Your task to perform on an android device: Go to accessibility settings Image 0: 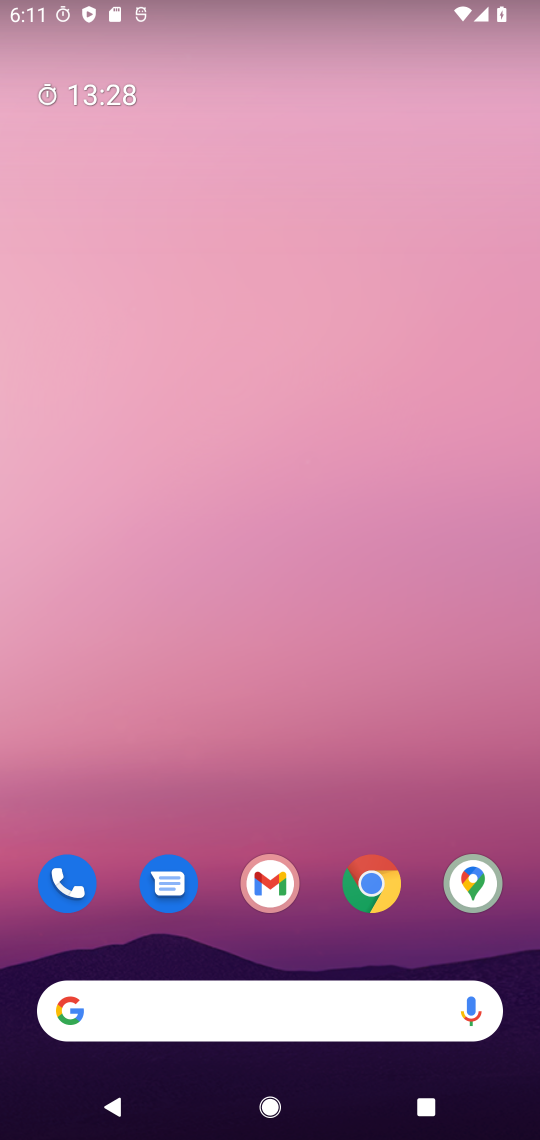
Step 0: drag from (286, 804) to (286, 176)
Your task to perform on an android device: Go to accessibility settings Image 1: 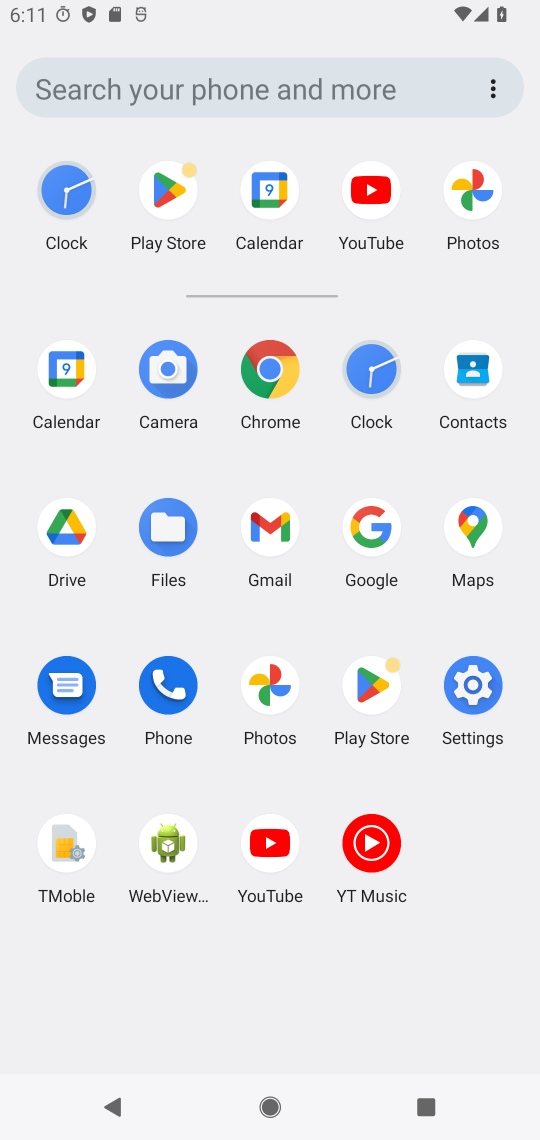
Step 1: click (445, 666)
Your task to perform on an android device: Go to accessibility settings Image 2: 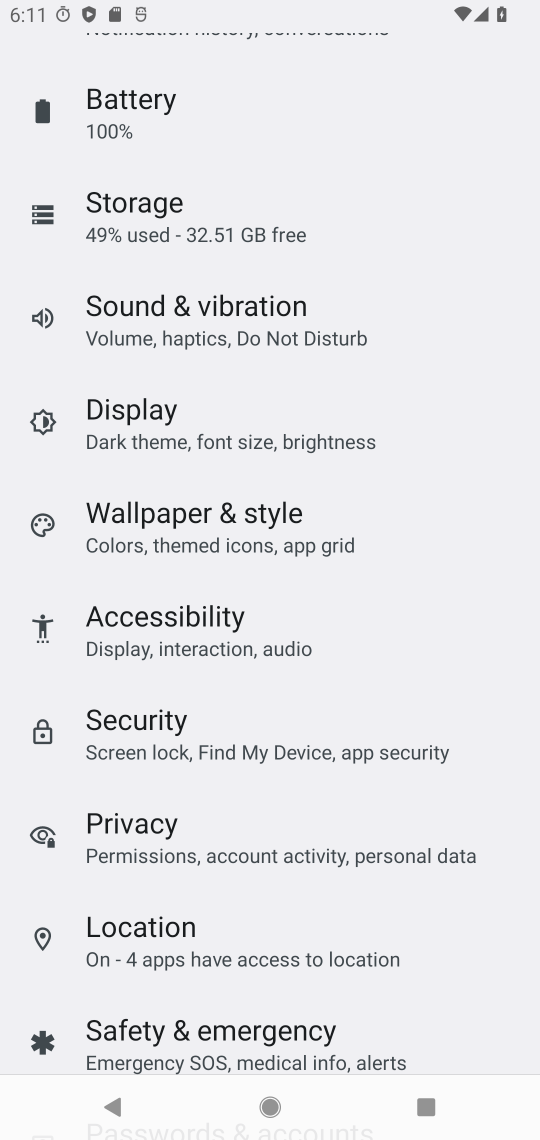
Step 2: click (286, 608)
Your task to perform on an android device: Go to accessibility settings Image 3: 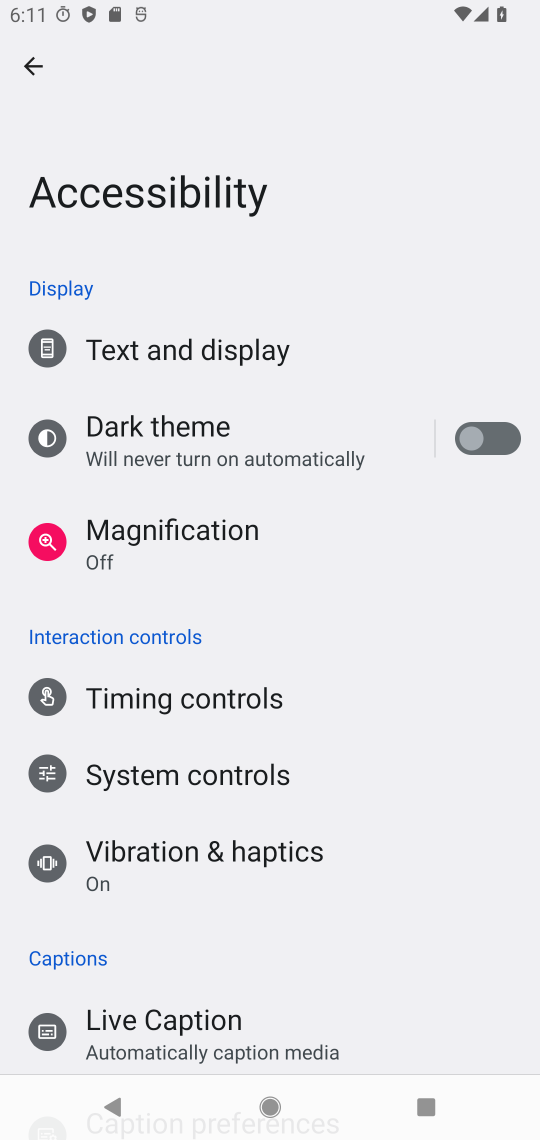
Step 3: task complete